Your task to perform on an android device: find snoozed emails in the gmail app Image 0: 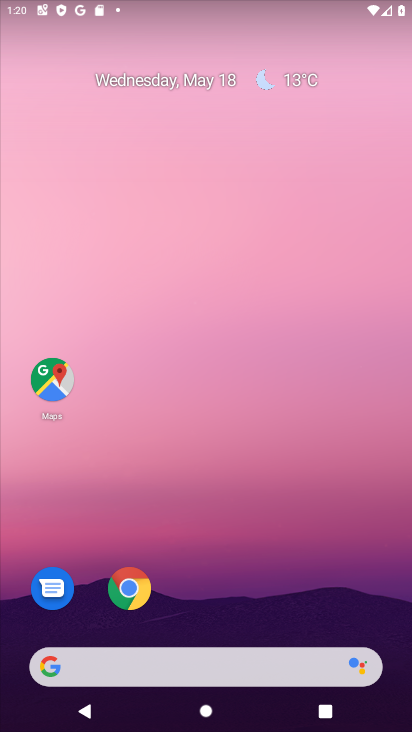
Step 0: drag from (207, 629) to (239, 193)
Your task to perform on an android device: find snoozed emails in the gmail app Image 1: 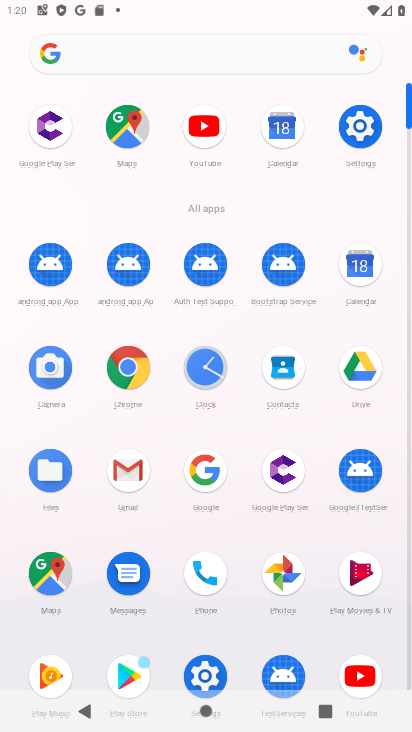
Step 1: click (134, 478)
Your task to perform on an android device: find snoozed emails in the gmail app Image 2: 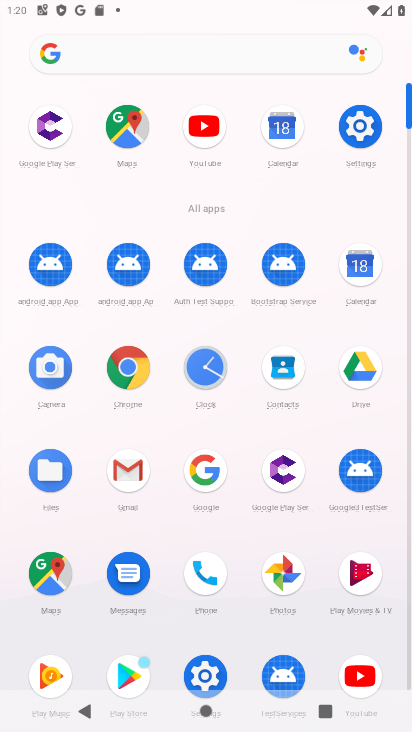
Step 2: click (134, 478)
Your task to perform on an android device: find snoozed emails in the gmail app Image 3: 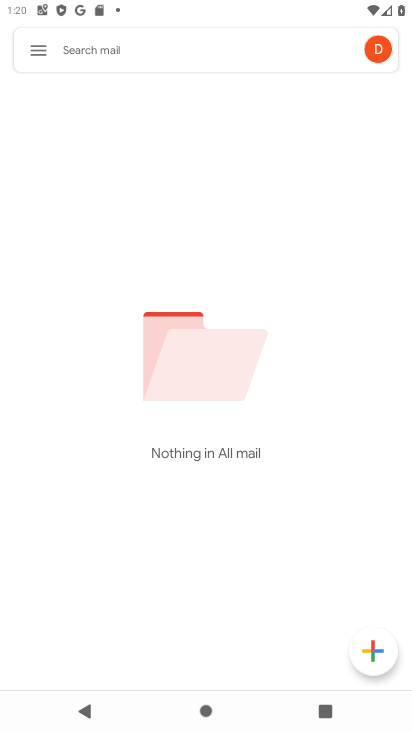
Step 3: click (29, 48)
Your task to perform on an android device: find snoozed emails in the gmail app Image 4: 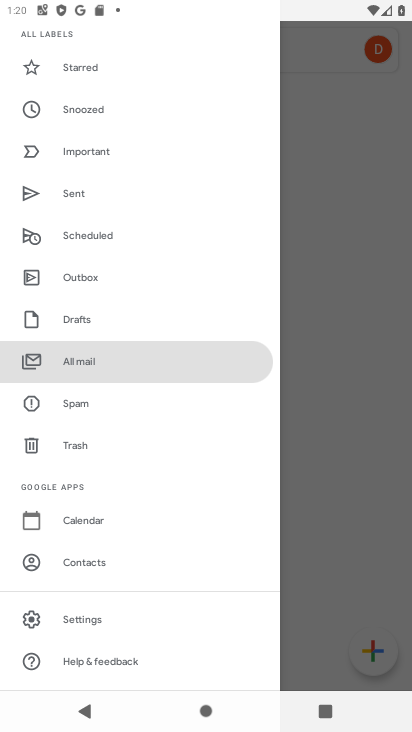
Step 4: click (98, 101)
Your task to perform on an android device: find snoozed emails in the gmail app Image 5: 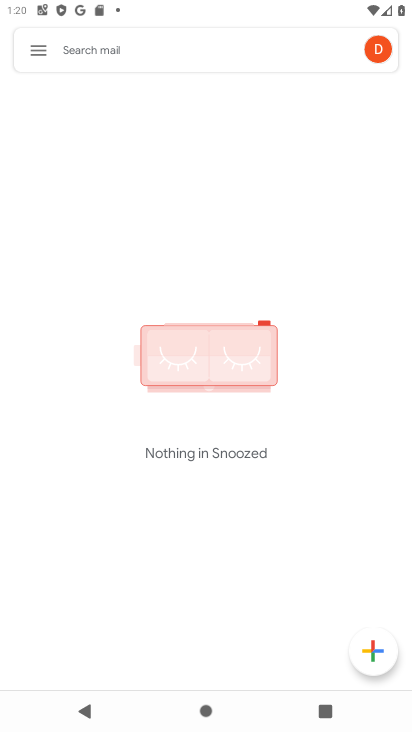
Step 5: drag from (232, 452) to (232, 175)
Your task to perform on an android device: find snoozed emails in the gmail app Image 6: 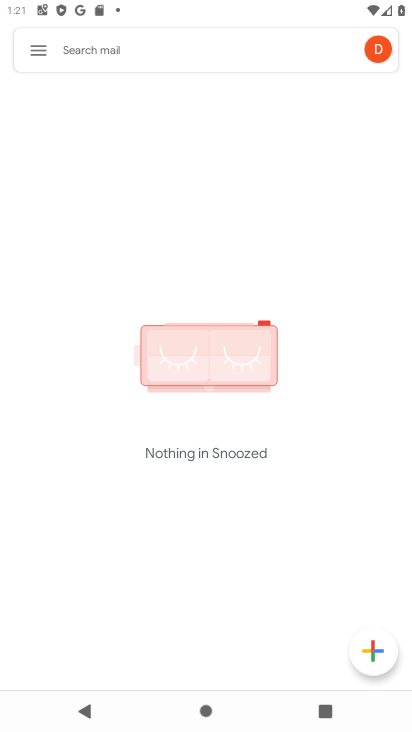
Step 6: drag from (196, 369) to (232, 90)
Your task to perform on an android device: find snoozed emails in the gmail app Image 7: 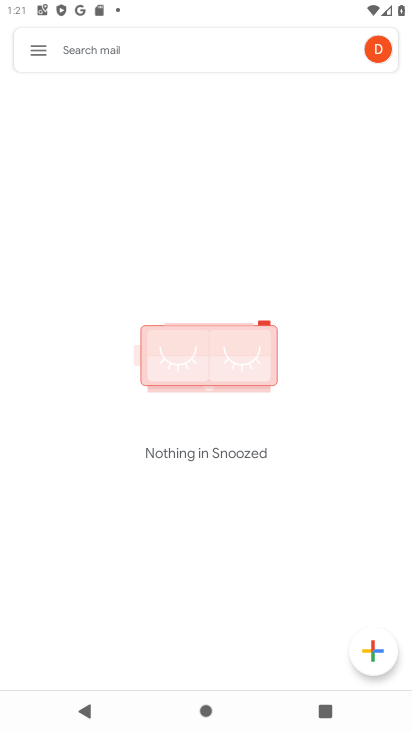
Step 7: click (31, 46)
Your task to perform on an android device: find snoozed emails in the gmail app Image 8: 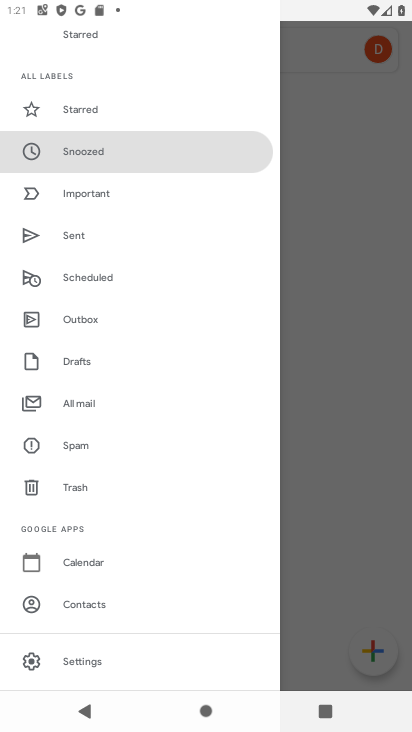
Step 8: click (105, 158)
Your task to perform on an android device: find snoozed emails in the gmail app Image 9: 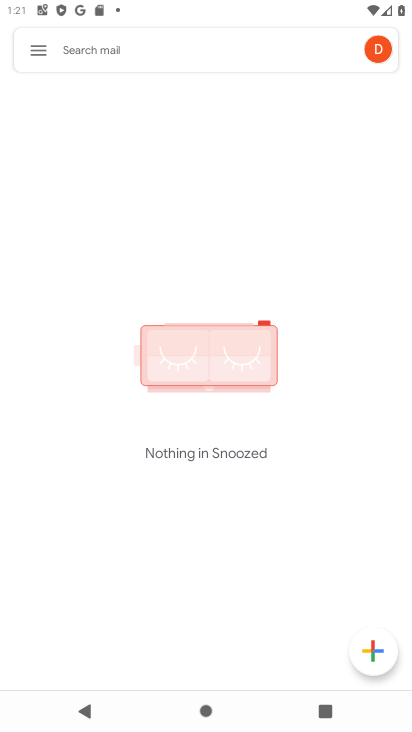
Step 9: task complete